Your task to perform on an android device: Search for pizza restaurants on Maps Image 0: 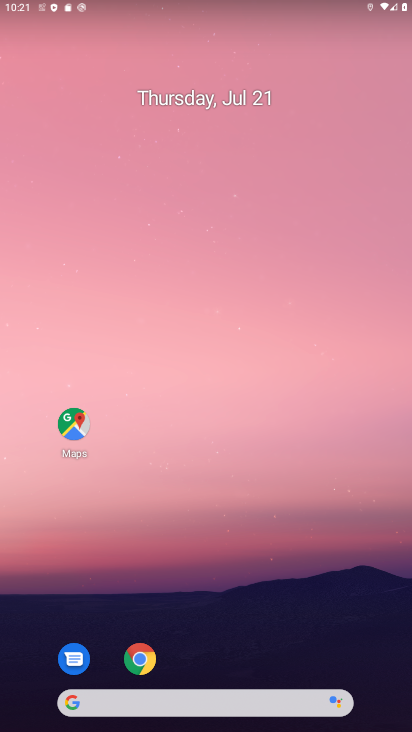
Step 0: click (79, 426)
Your task to perform on an android device: Search for pizza restaurants on Maps Image 1: 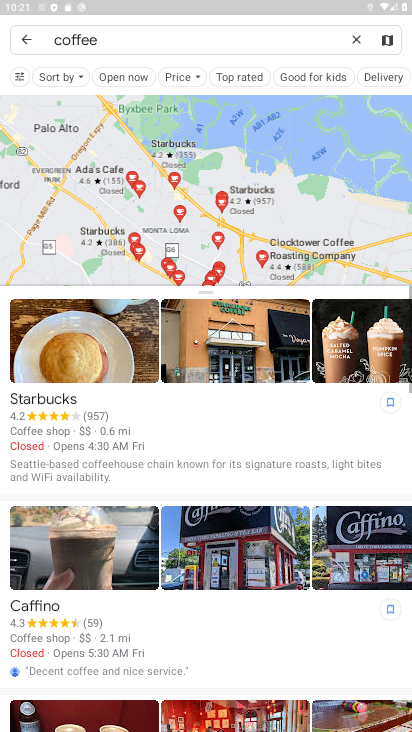
Step 1: click (351, 32)
Your task to perform on an android device: Search for pizza restaurants on Maps Image 2: 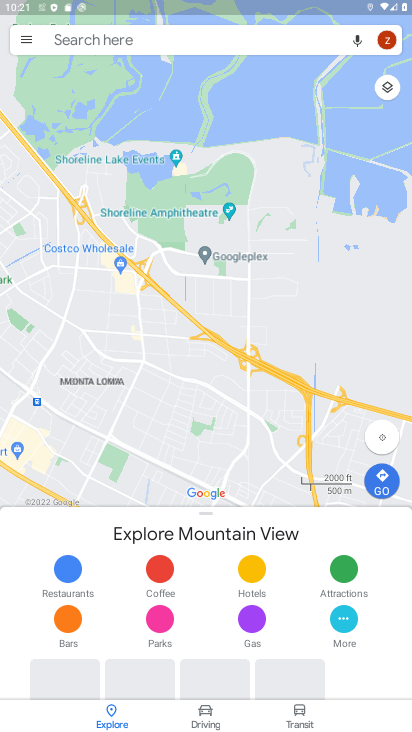
Step 2: click (257, 43)
Your task to perform on an android device: Search for pizza restaurants on Maps Image 3: 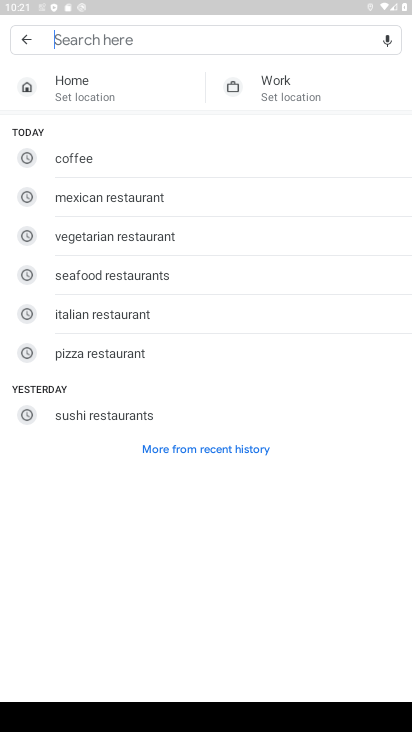
Step 3: click (67, 357)
Your task to perform on an android device: Search for pizza restaurants on Maps Image 4: 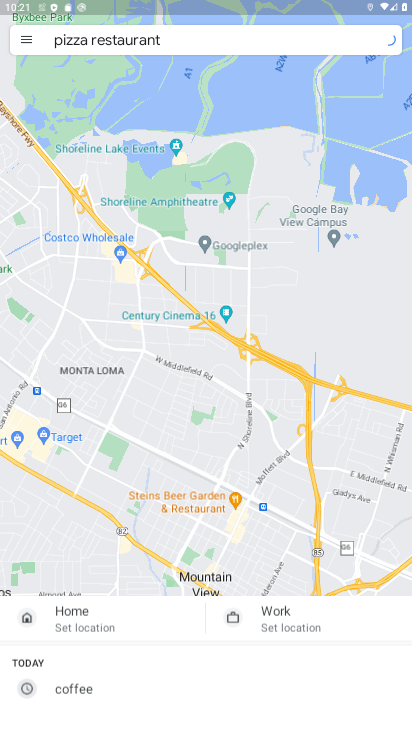
Step 4: task complete